Your task to perform on an android device: Is it going to rain tomorrow? Image 0: 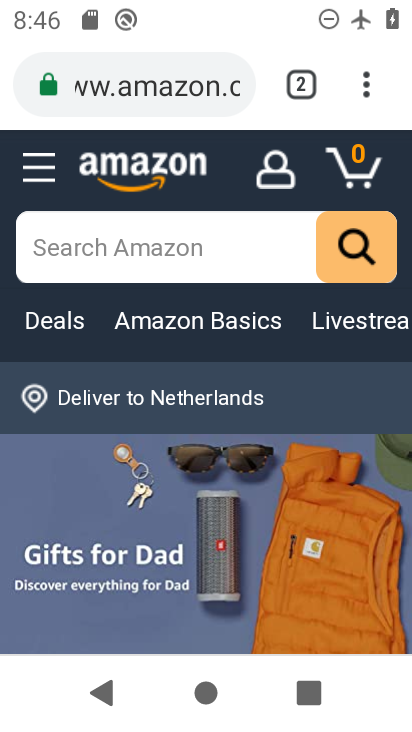
Step 0: press home button
Your task to perform on an android device: Is it going to rain tomorrow? Image 1: 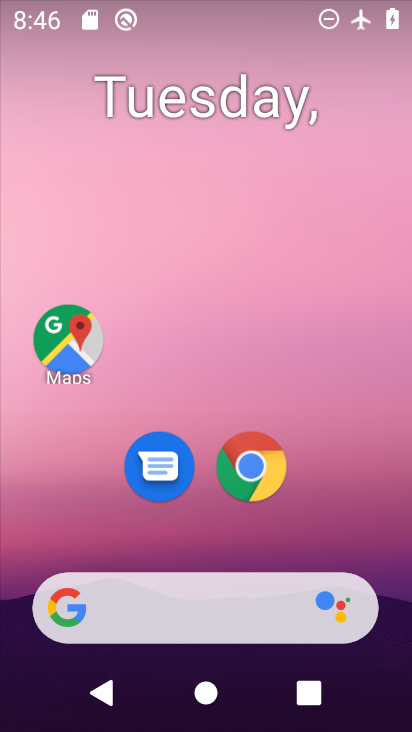
Step 1: click (172, 613)
Your task to perform on an android device: Is it going to rain tomorrow? Image 2: 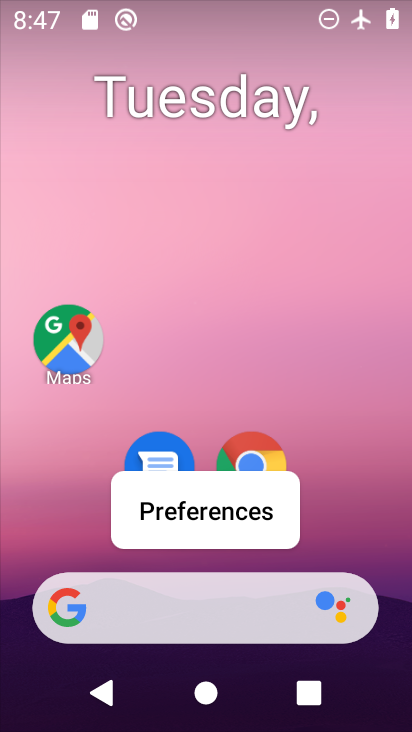
Step 2: click (164, 623)
Your task to perform on an android device: Is it going to rain tomorrow? Image 3: 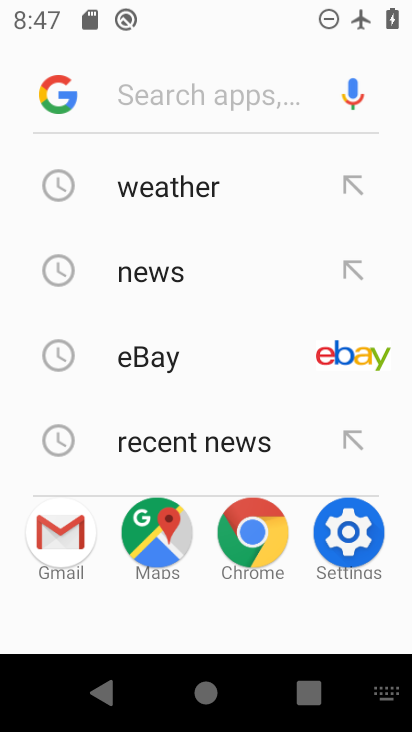
Step 3: click (180, 191)
Your task to perform on an android device: Is it going to rain tomorrow? Image 4: 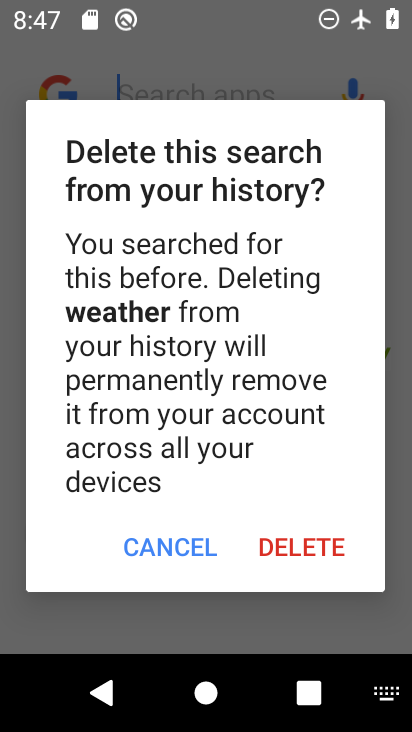
Step 4: click (183, 546)
Your task to perform on an android device: Is it going to rain tomorrow? Image 5: 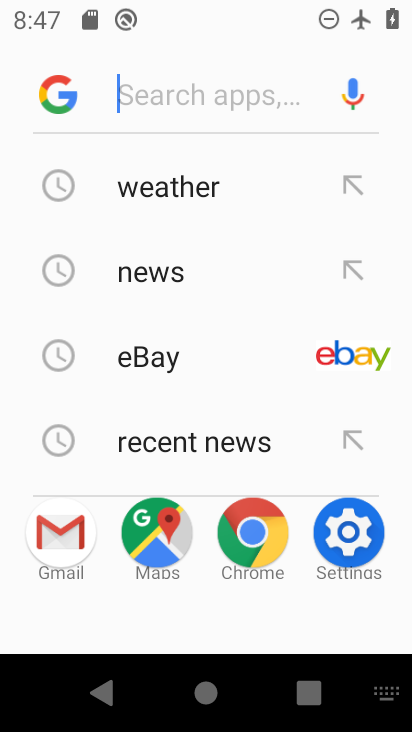
Step 5: click (213, 209)
Your task to perform on an android device: Is it going to rain tomorrow? Image 6: 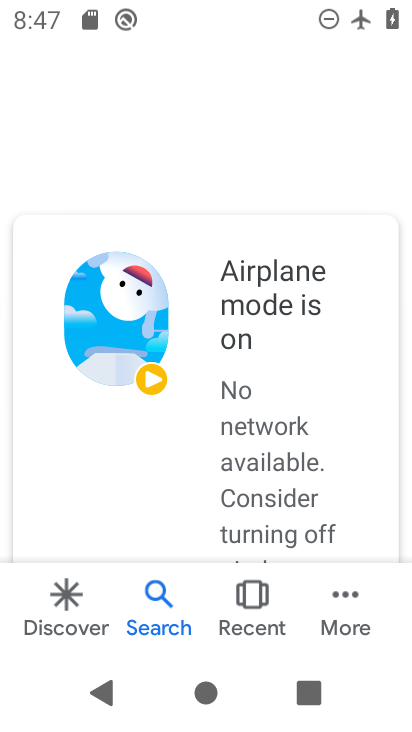
Step 6: task complete